Your task to perform on an android device: Show me recent news Image 0: 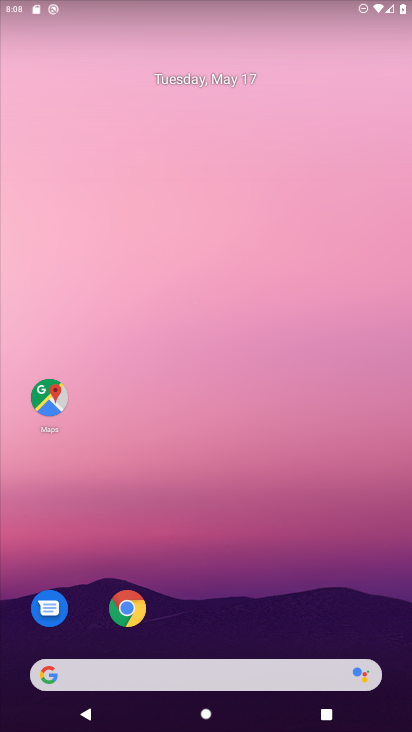
Step 0: drag from (239, 642) to (294, 9)
Your task to perform on an android device: Show me recent news Image 1: 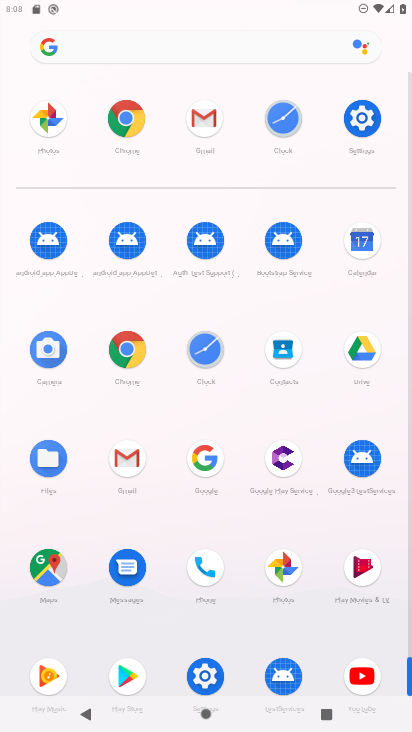
Step 1: click (175, 36)
Your task to perform on an android device: Show me recent news Image 2: 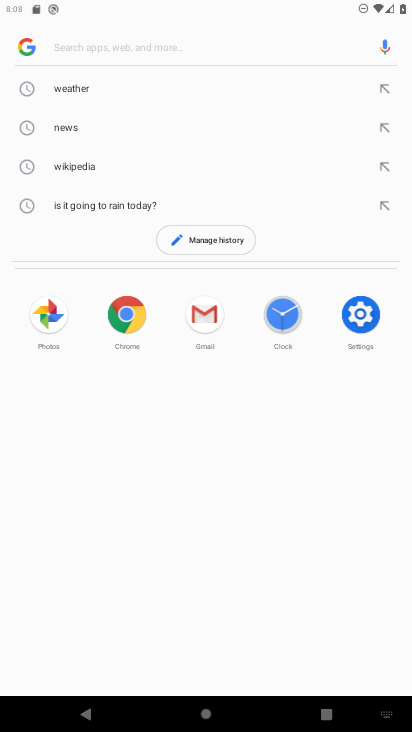
Step 2: type "recent news"
Your task to perform on an android device: Show me recent news Image 3: 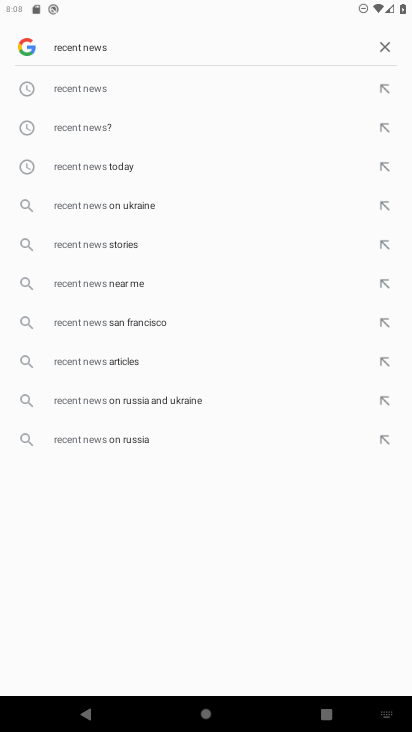
Step 3: click (96, 127)
Your task to perform on an android device: Show me recent news Image 4: 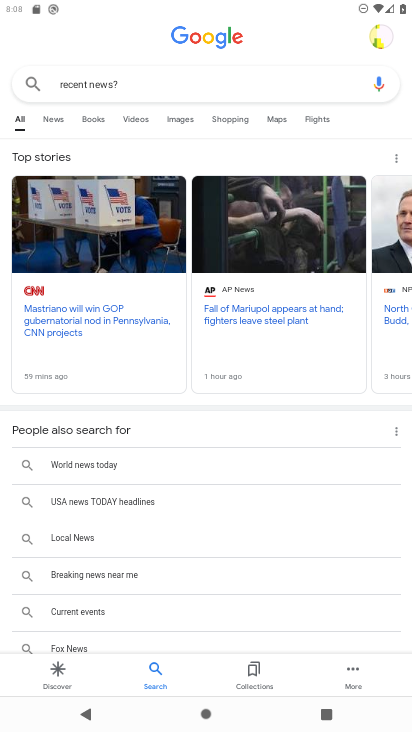
Step 4: task complete